Your task to perform on an android device: show emergency info Image 0: 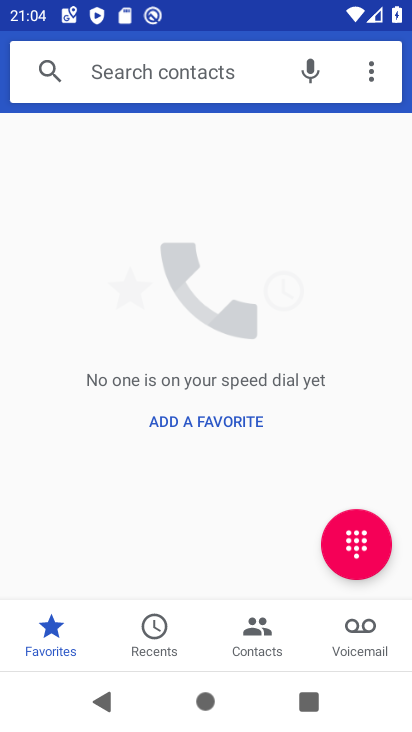
Step 0: press home button
Your task to perform on an android device: show emergency info Image 1: 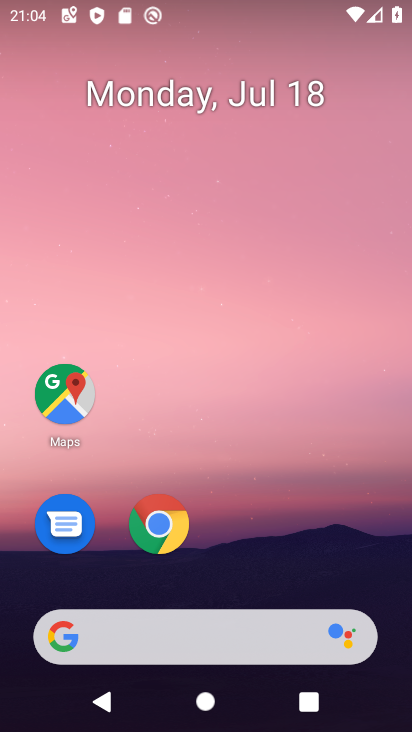
Step 1: drag from (286, 527) to (270, 35)
Your task to perform on an android device: show emergency info Image 2: 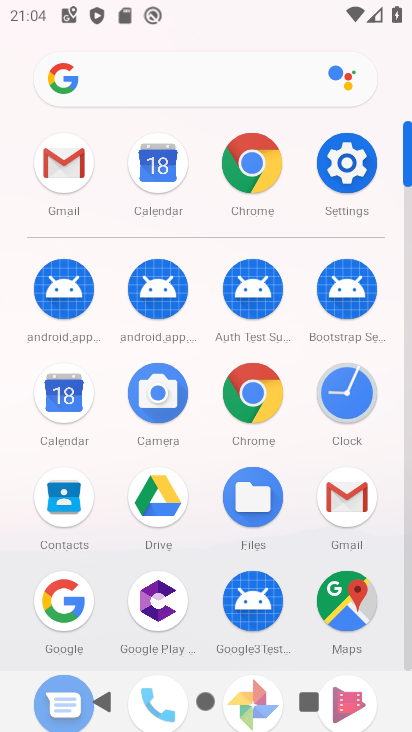
Step 2: click (352, 162)
Your task to perform on an android device: show emergency info Image 3: 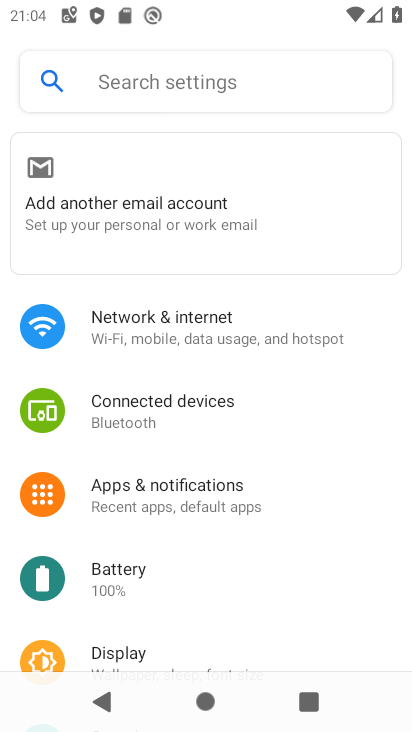
Step 3: drag from (217, 563) to (304, 84)
Your task to perform on an android device: show emergency info Image 4: 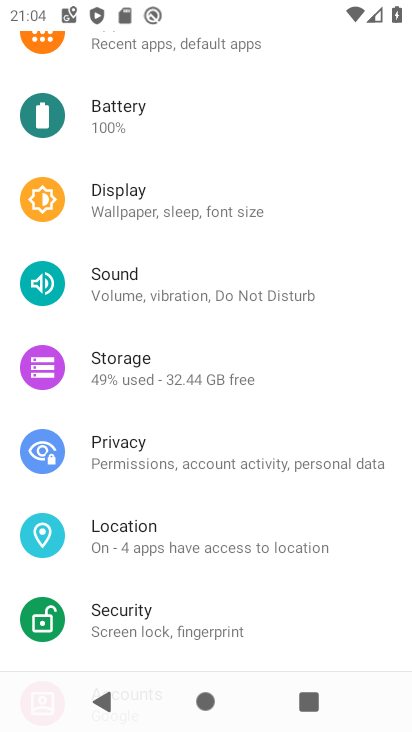
Step 4: drag from (215, 509) to (255, 127)
Your task to perform on an android device: show emergency info Image 5: 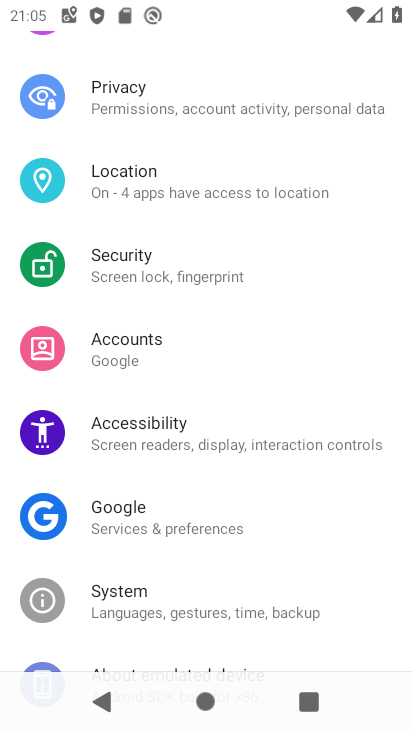
Step 5: drag from (211, 485) to (273, 144)
Your task to perform on an android device: show emergency info Image 6: 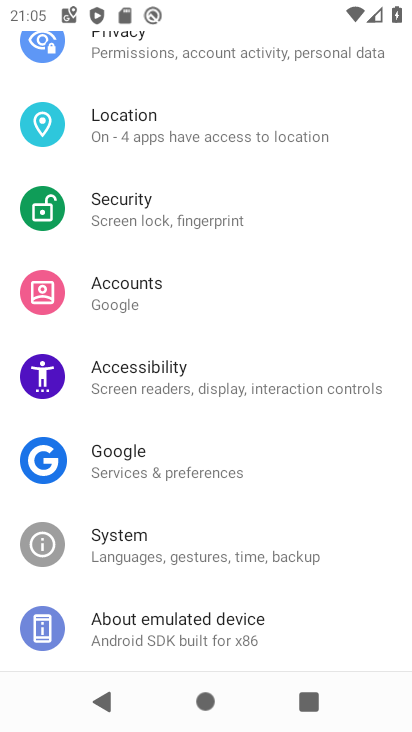
Step 6: click (206, 617)
Your task to perform on an android device: show emergency info Image 7: 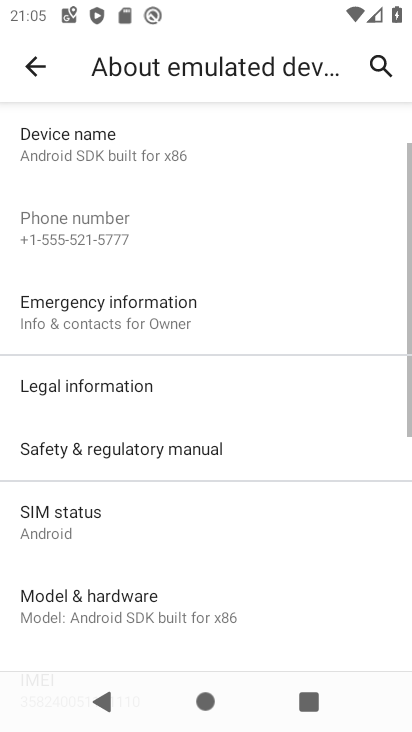
Step 7: click (172, 318)
Your task to perform on an android device: show emergency info Image 8: 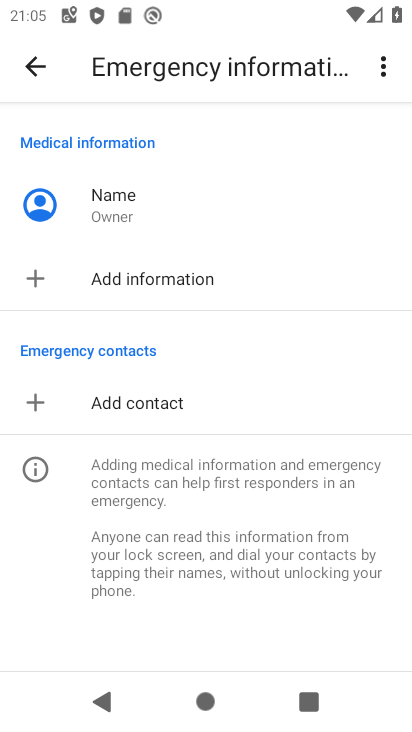
Step 8: task complete